Your task to perform on an android device: Is it going to rain this weekend? Image 0: 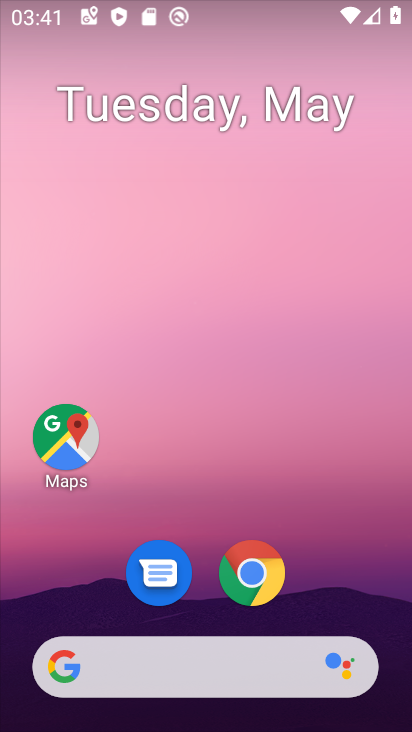
Step 0: click (177, 664)
Your task to perform on an android device: Is it going to rain this weekend? Image 1: 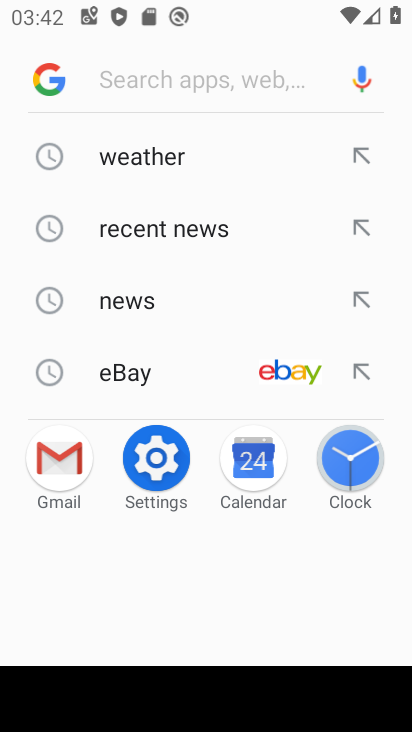
Step 1: click (136, 149)
Your task to perform on an android device: Is it going to rain this weekend? Image 2: 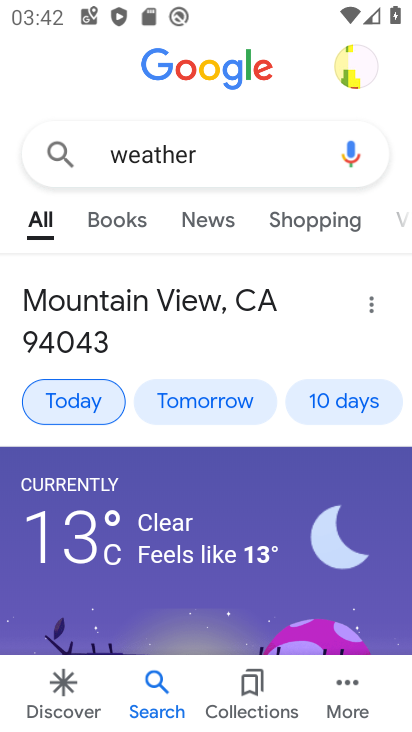
Step 2: click (321, 389)
Your task to perform on an android device: Is it going to rain this weekend? Image 3: 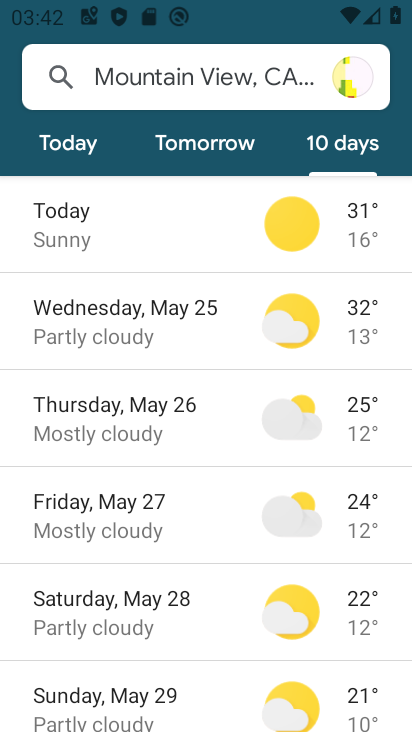
Step 3: task complete